Your task to perform on an android device: Open Maps and search for coffee Image 0: 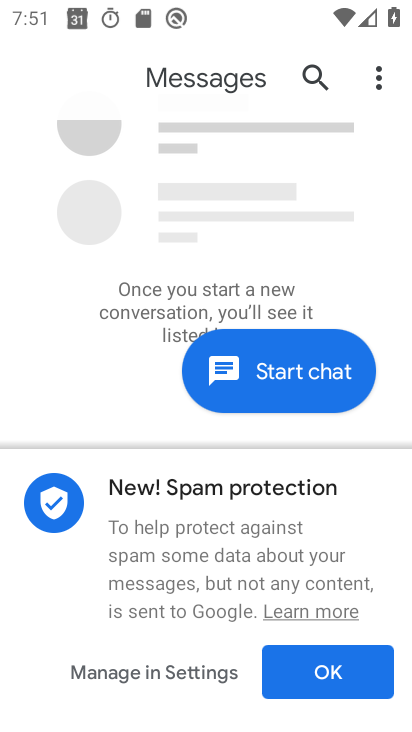
Step 0: press home button
Your task to perform on an android device: Open Maps and search for coffee Image 1: 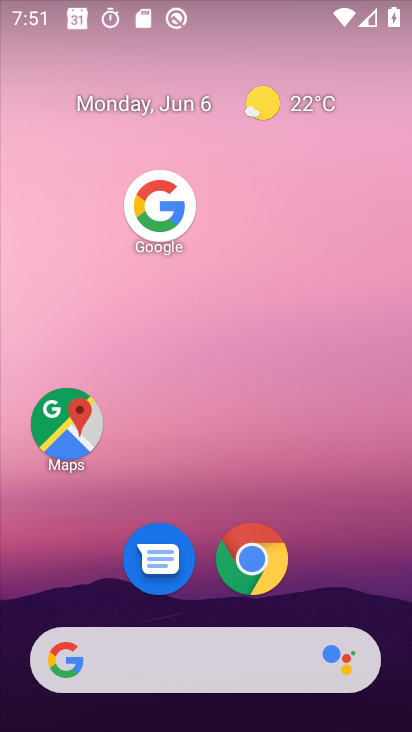
Step 1: drag from (212, 508) to (262, 157)
Your task to perform on an android device: Open Maps and search for coffee Image 2: 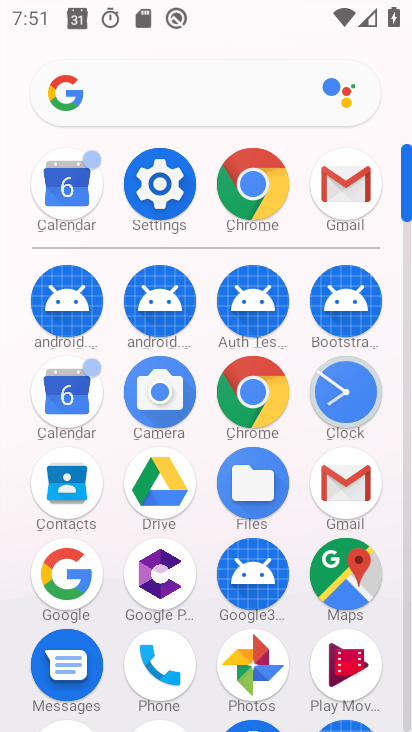
Step 2: click (69, 402)
Your task to perform on an android device: Open Maps and search for coffee Image 3: 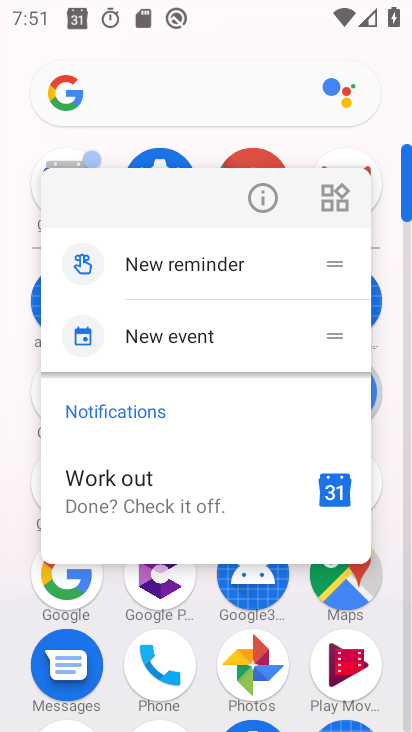
Step 3: press back button
Your task to perform on an android device: Open Maps and search for coffee Image 4: 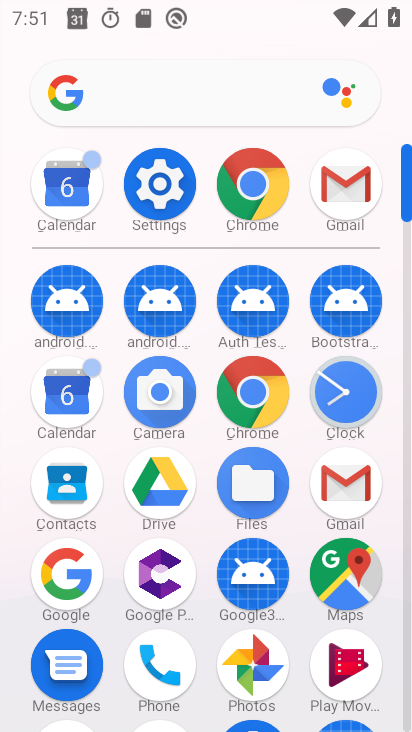
Step 4: click (340, 587)
Your task to perform on an android device: Open Maps and search for coffee Image 5: 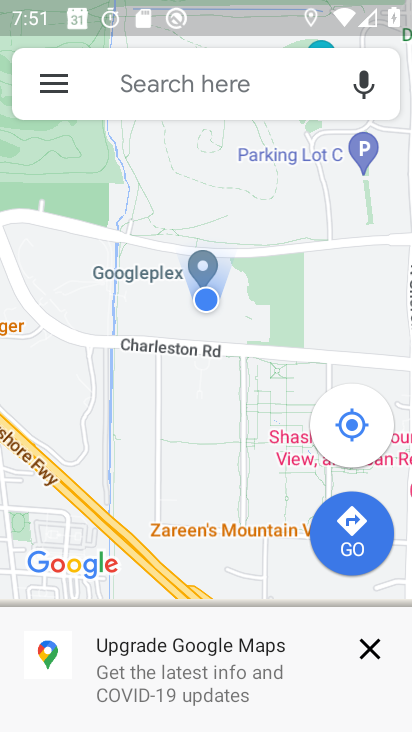
Step 5: click (207, 82)
Your task to perform on an android device: Open Maps and search for coffee Image 6: 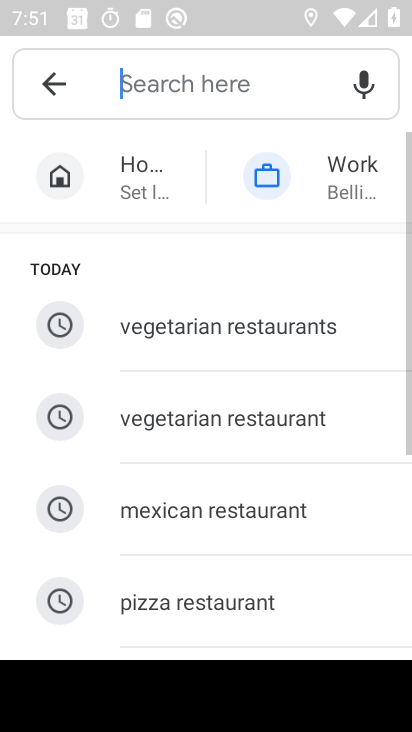
Step 6: type "coffee"
Your task to perform on an android device: Open Maps and search for coffee Image 7: 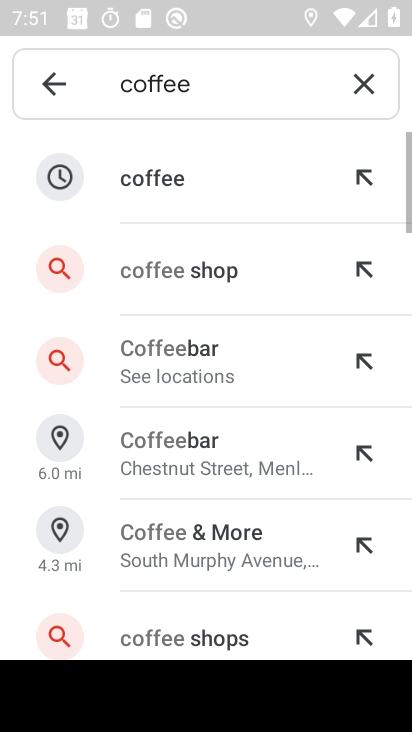
Step 7: click (142, 177)
Your task to perform on an android device: Open Maps and search for coffee Image 8: 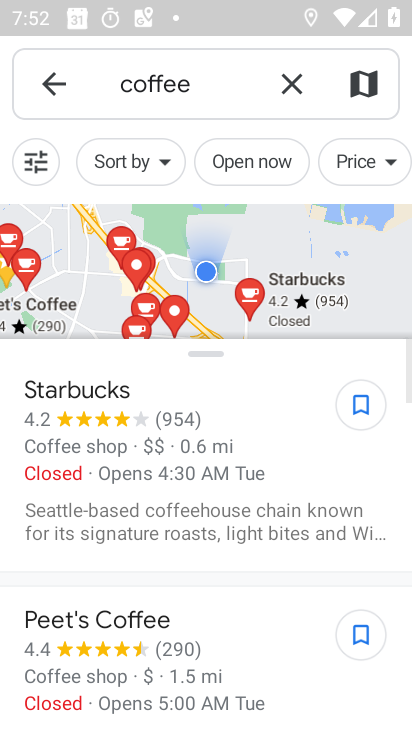
Step 8: task complete